Your task to perform on an android device: Go to wifi settings Image 0: 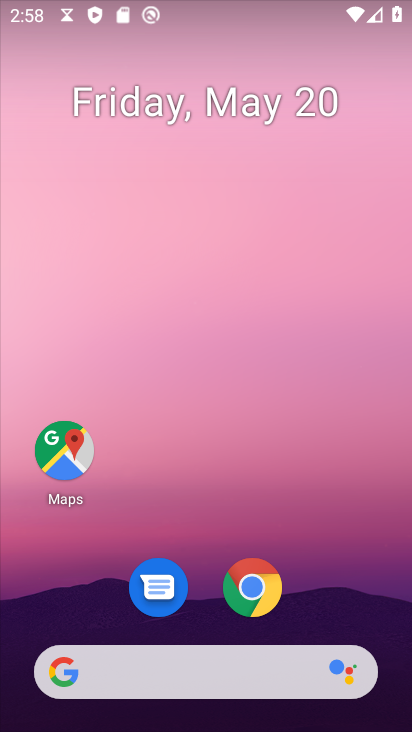
Step 0: drag from (323, 605) to (300, 176)
Your task to perform on an android device: Go to wifi settings Image 1: 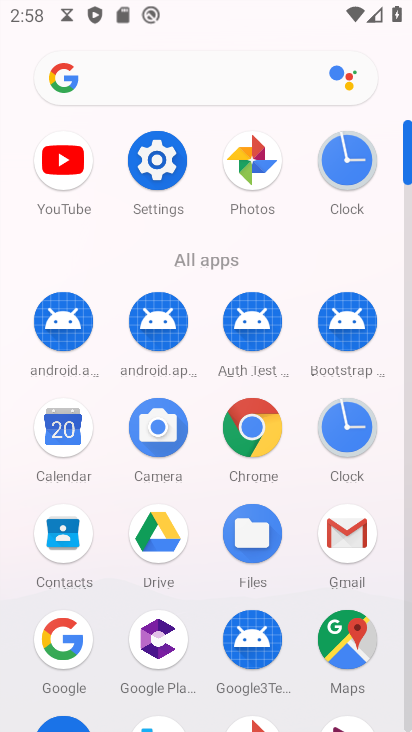
Step 1: click (143, 173)
Your task to perform on an android device: Go to wifi settings Image 2: 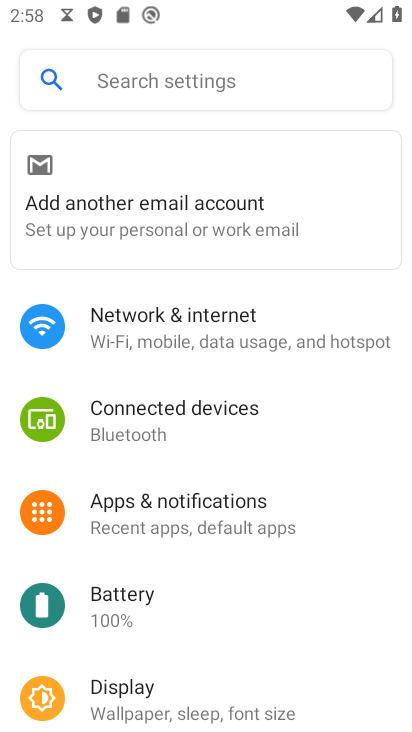
Step 2: click (211, 332)
Your task to perform on an android device: Go to wifi settings Image 3: 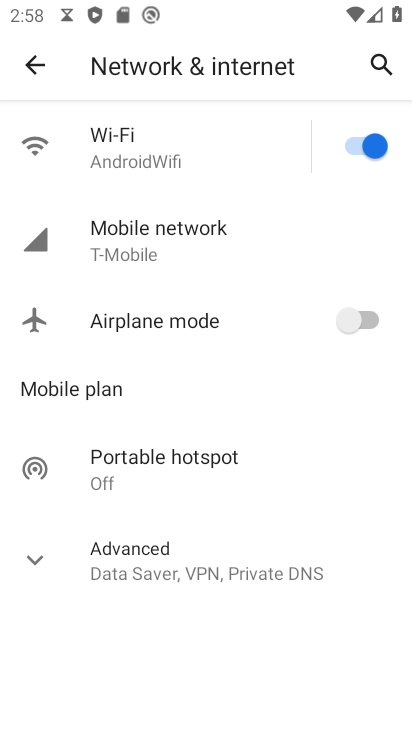
Step 3: click (165, 158)
Your task to perform on an android device: Go to wifi settings Image 4: 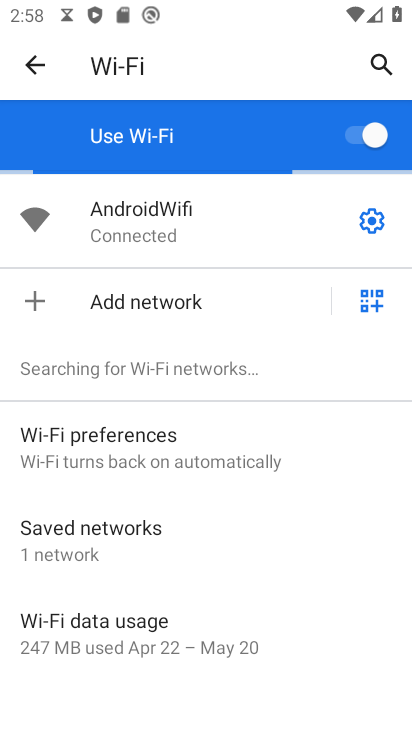
Step 4: task complete